Your task to perform on an android device: Search for pizza restaurants on Maps Image 0: 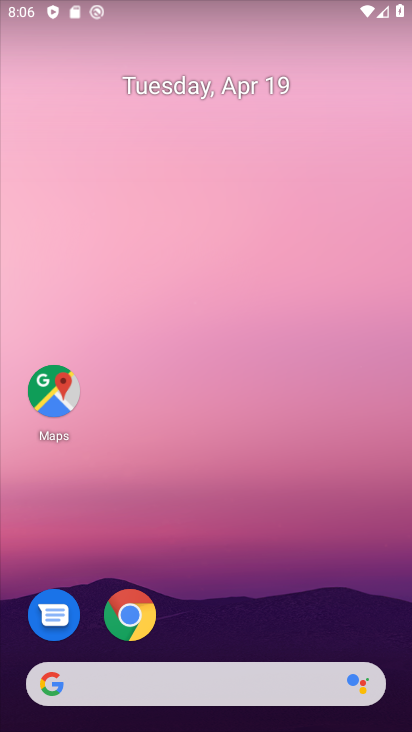
Step 0: drag from (309, 563) to (294, 16)
Your task to perform on an android device: Search for pizza restaurants on Maps Image 1: 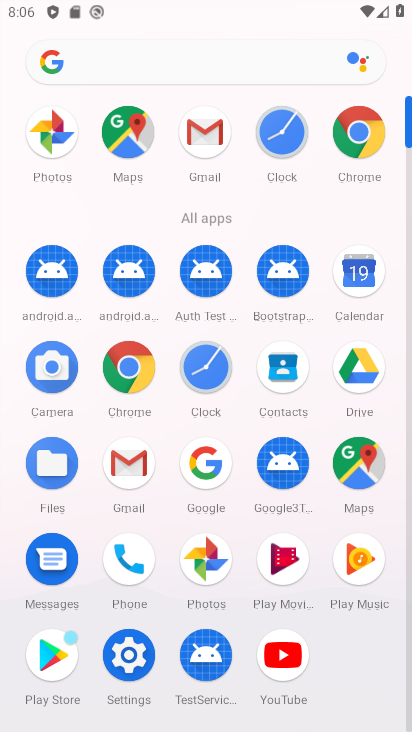
Step 1: click (362, 463)
Your task to perform on an android device: Search for pizza restaurants on Maps Image 2: 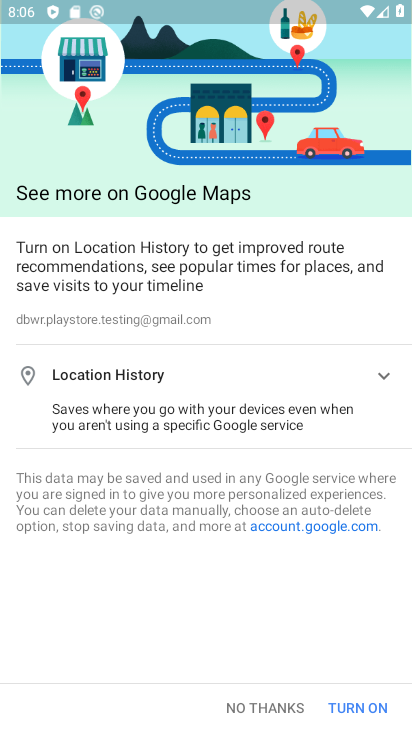
Step 2: click (354, 698)
Your task to perform on an android device: Search for pizza restaurants on Maps Image 3: 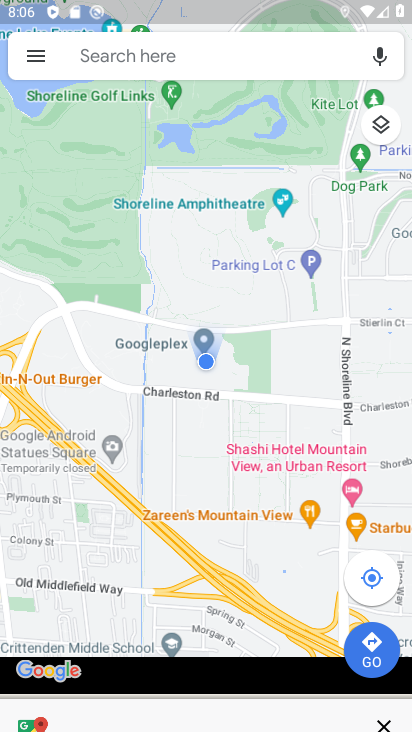
Step 3: click (260, 52)
Your task to perform on an android device: Search for pizza restaurants on Maps Image 4: 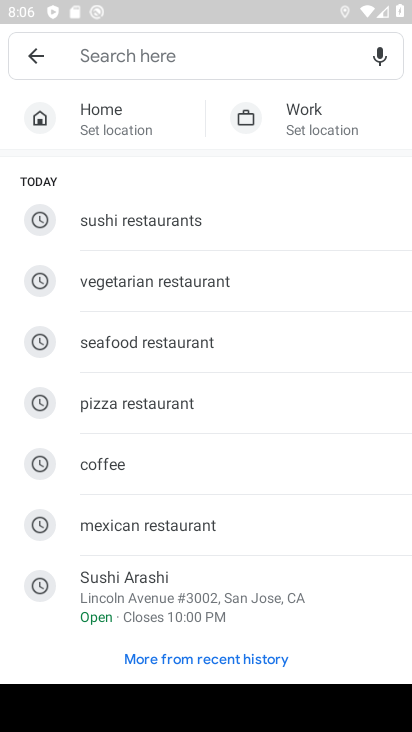
Step 4: click (206, 406)
Your task to perform on an android device: Search for pizza restaurants on Maps Image 5: 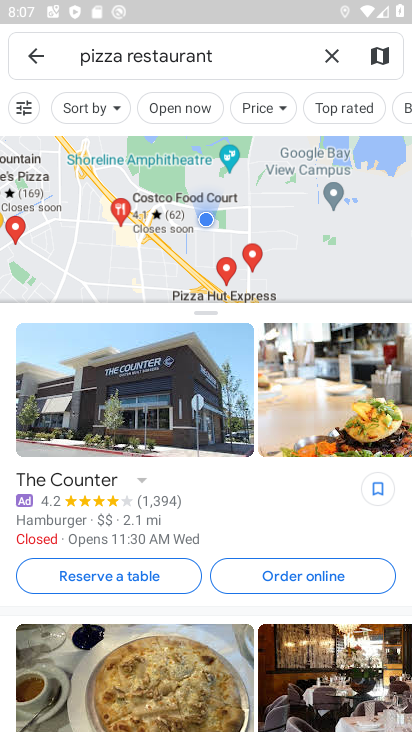
Step 5: task complete